Your task to perform on an android device: What's on my calendar today? Image 0: 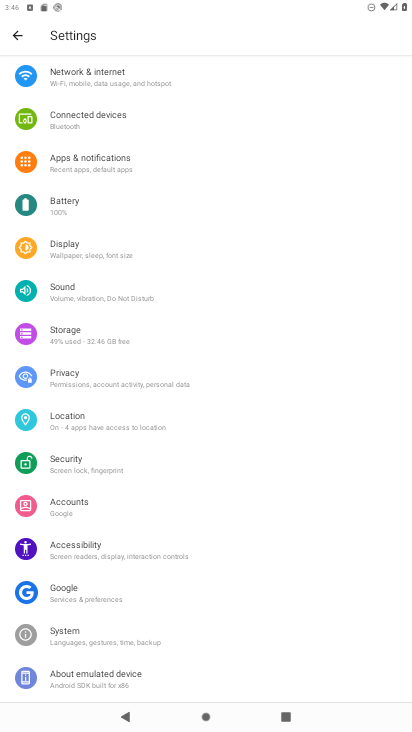
Step 0: press home button
Your task to perform on an android device: What's on my calendar today? Image 1: 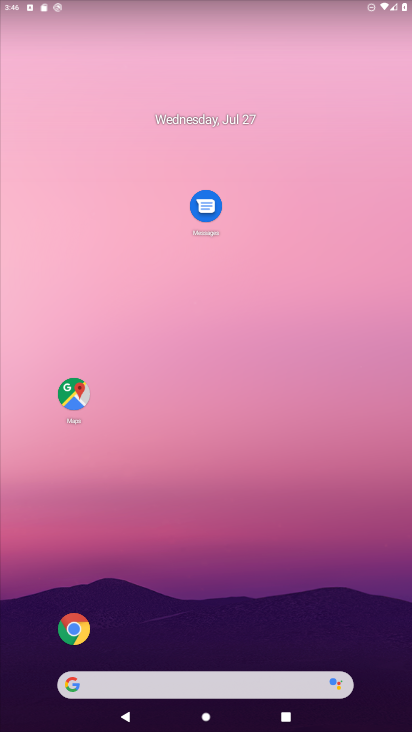
Step 1: drag from (237, 224) to (123, 627)
Your task to perform on an android device: What's on my calendar today? Image 2: 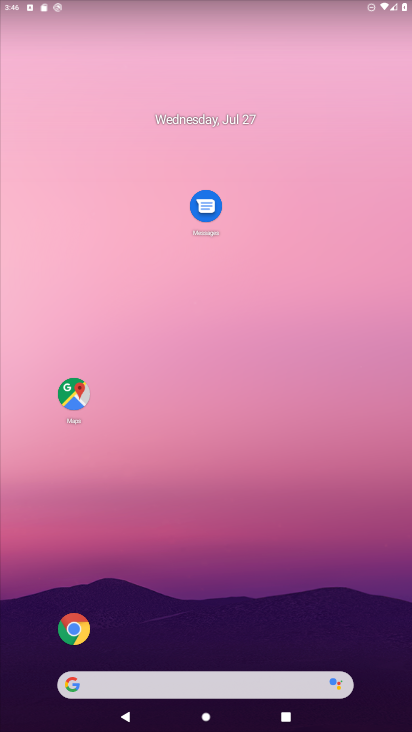
Step 2: click (213, 120)
Your task to perform on an android device: What's on my calendar today? Image 3: 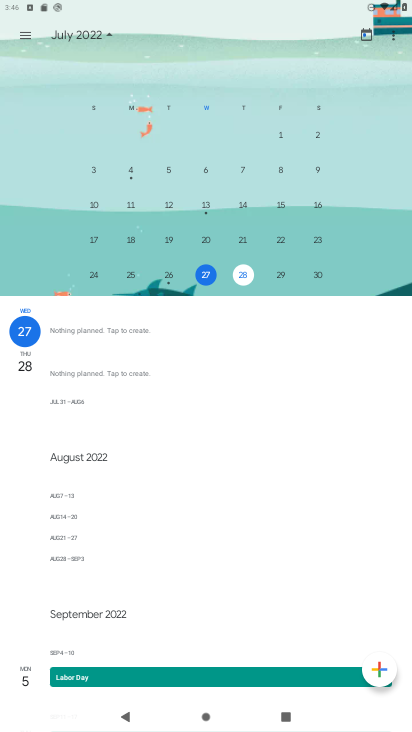
Step 3: task complete